Your task to perform on an android device: Open calendar and show me the first week of next month Image 0: 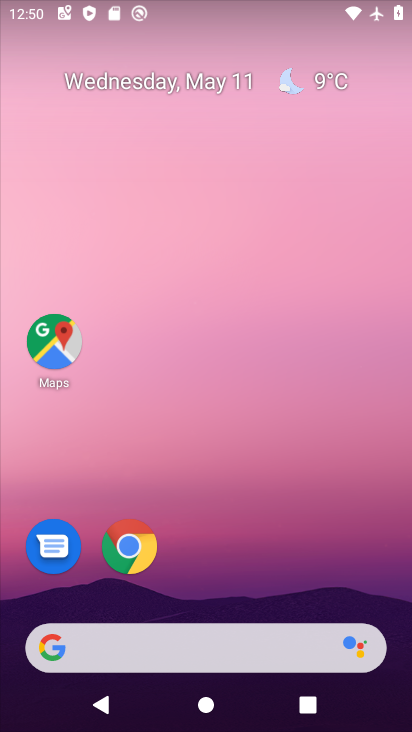
Step 0: drag from (312, 614) to (380, 180)
Your task to perform on an android device: Open calendar and show me the first week of next month Image 1: 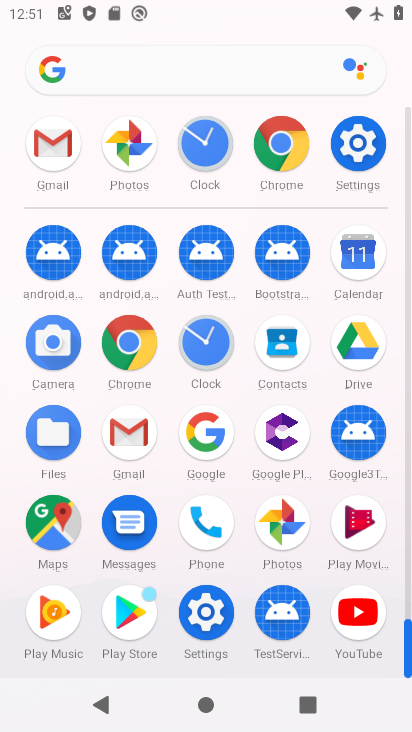
Step 1: click (370, 266)
Your task to perform on an android device: Open calendar and show me the first week of next month Image 2: 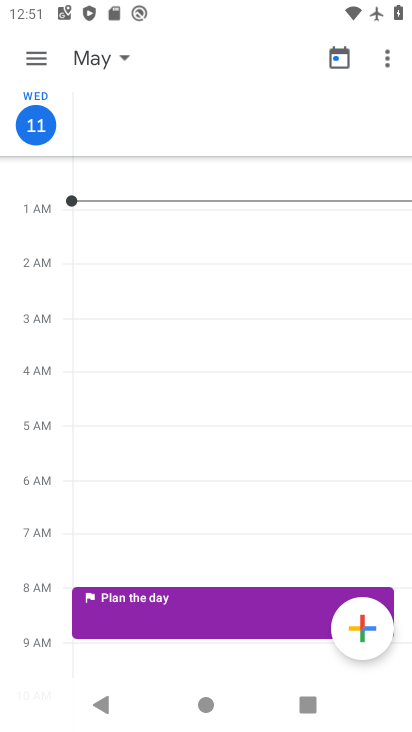
Step 2: click (124, 58)
Your task to perform on an android device: Open calendar and show me the first week of next month Image 3: 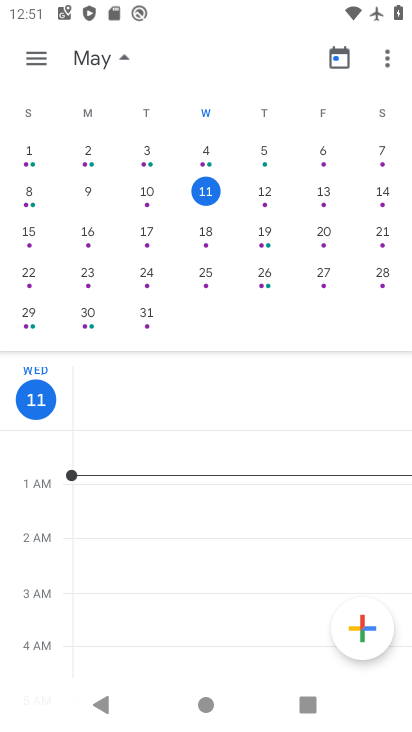
Step 3: drag from (368, 229) to (9, 200)
Your task to perform on an android device: Open calendar and show me the first week of next month Image 4: 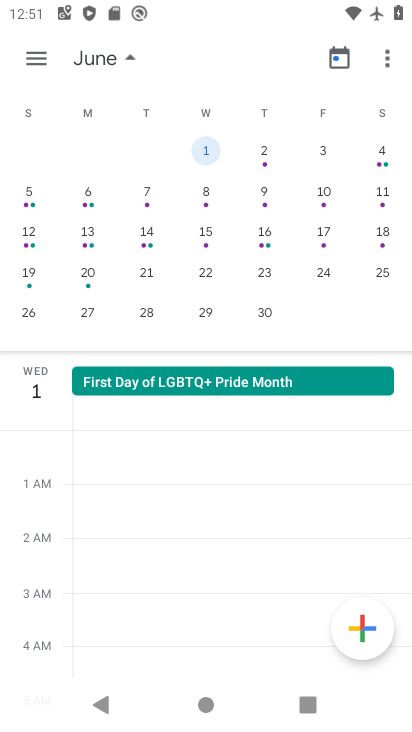
Step 4: click (328, 151)
Your task to perform on an android device: Open calendar and show me the first week of next month Image 5: 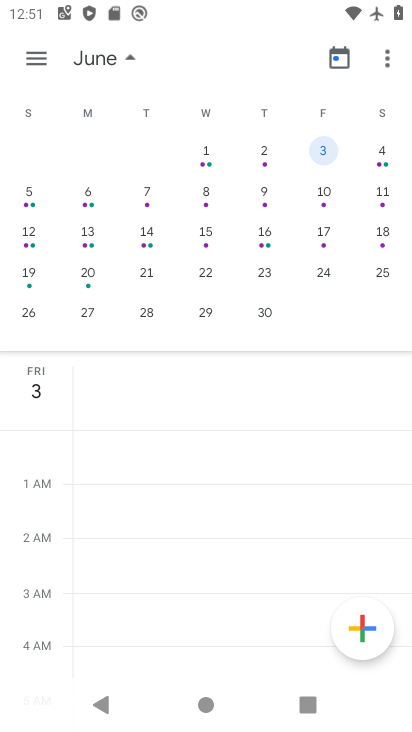
Step 5: click (28, 55)
Your task to perform on an android device: Open calendar and show me the first week of next month Image 6: 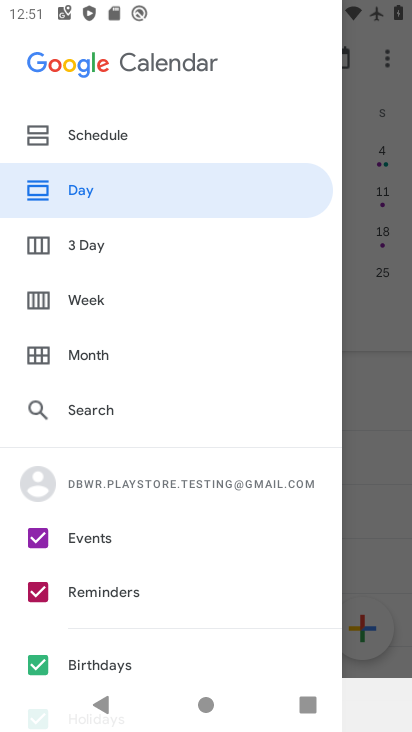
Step 6: click (88, 303)
Your task to perform on an android device: Open calendar and show me the first week of next month Image 7: 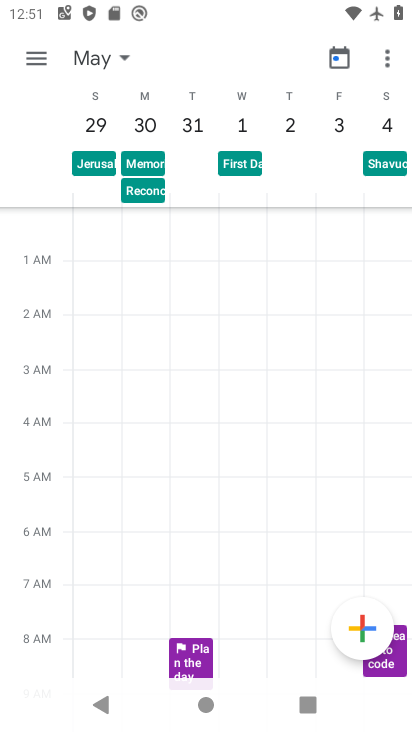
Step 7: task complete